Your task to perform on an android device: toggle pop-ups in chrome Image 0: 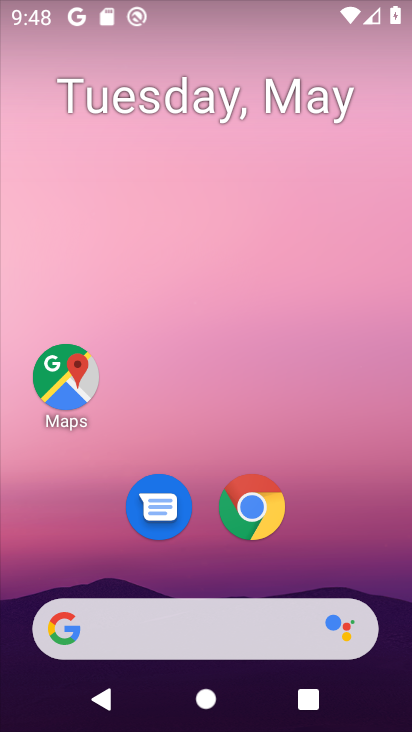
Step 0: click (258, 503)
Your task to perform on an android device: toggle pop-ups in chrome Image 1: 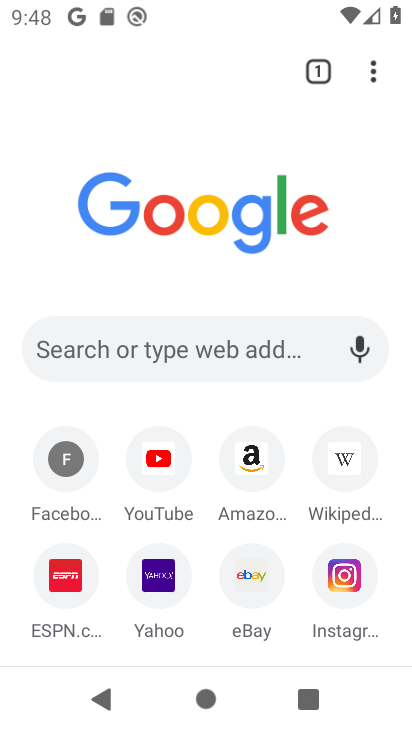
Step 1: click (378, 77)
Your task to perform on an android device: toggle pop-ups in chrome Image 2: 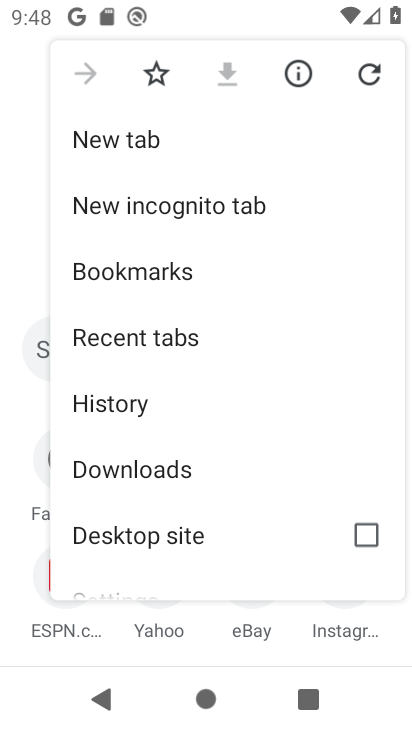
Step 2: drag from (249, 528) to (237, 220)
Your task to perform on an android device: toggle pop-ups in chrome Image 3: 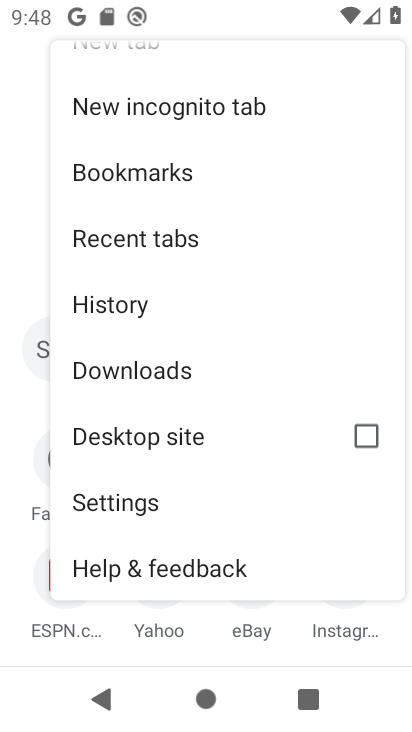
Step 3: click (134, 507)
Your task to perform on an android device: toggle pop-ups in chrome Image 4: 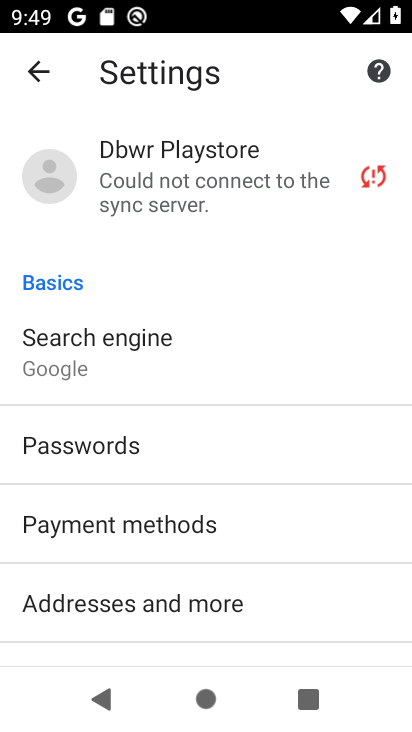
Step 4: drag from (307, 546) to (248, 137)
Your task to perform on an android device: toggle pop-ups in chrome Image 5: 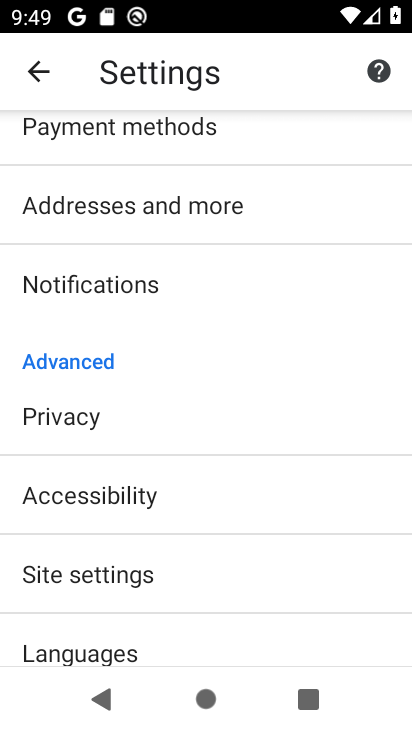
Step 5: click (150, 574)
Your task to perform on an android device: toggle pop-ups in chrome Image 6: 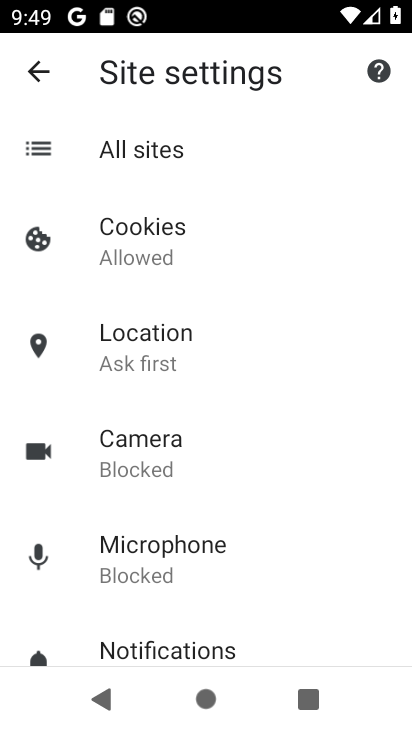
Step 6: drag from (256, 557) to (261, 199)
Your task to perform on an android device: toggle pop-ups in chrome Image 7: 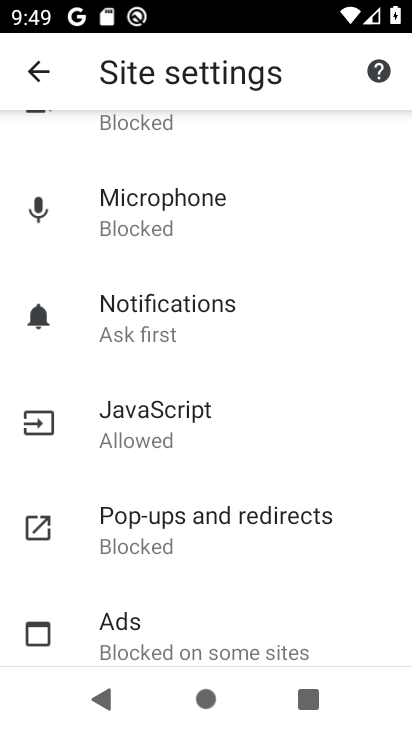
Step 7: click (259, 518)
Your task to perform on an android device: toggle pop-ups in chrome Image 8: 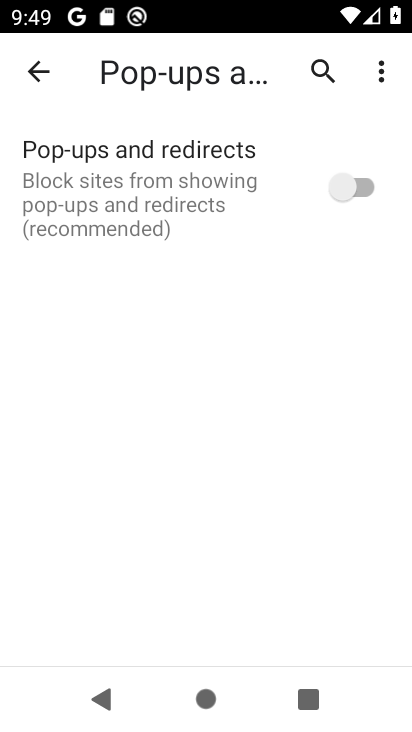
Step 8: click (362, 184)
Your task to perform on an android device: toggle pop-ups in chrome Image 9: 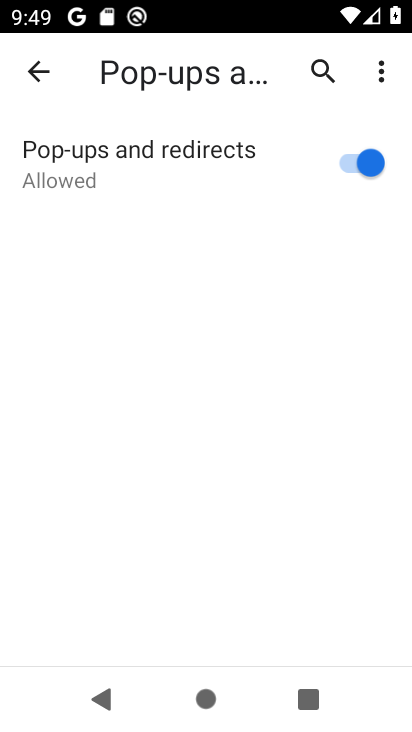
Step 9: task complete